Your task to perform on an android device: show emergency info Image 0: 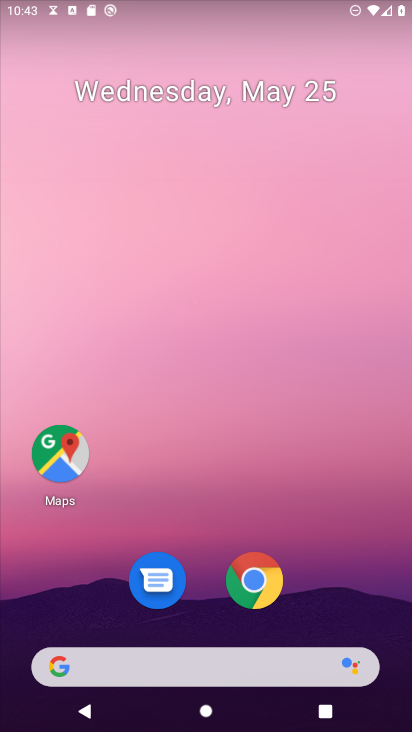
Step 0: drag from (27, 566) to (244, 75)
Your task to perform on an android device: show emergency info Image 1: 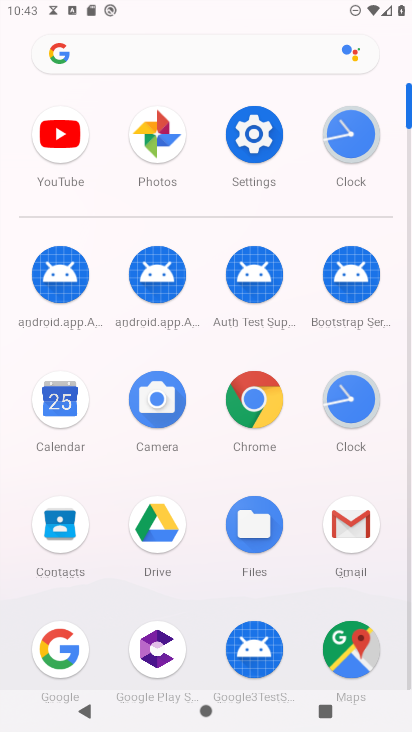
Step 1: click (248, 121)
Your task to perform on an android device: show emergency info Image 2: 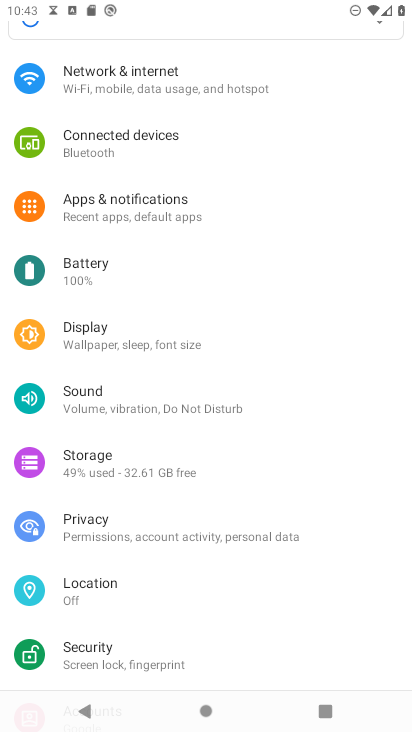
Step 2: drag from (18, 527) to (250, 75)
Your task to perform on an android device: show emergency info Image 3: 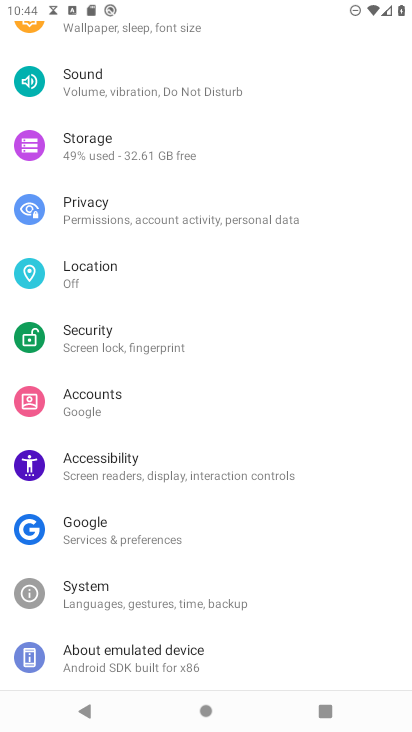
Step 3: drag from (2, 495) to (231, 147)
Your task to perform on an android device: show emergency info Image 4: 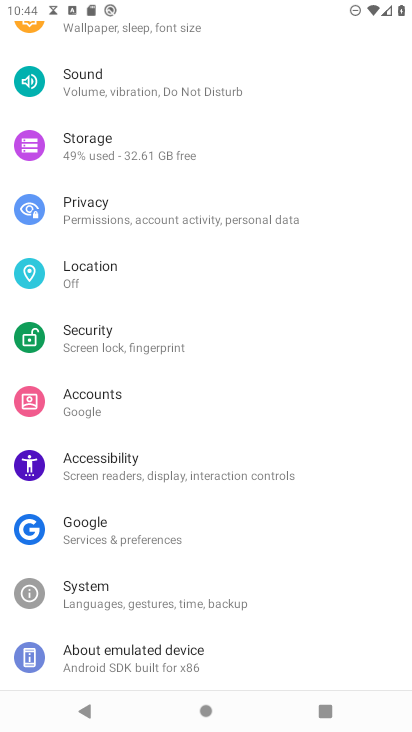
Step 4: click (69, 643)
Your task to perform on an android device: show emergency info Image 5: 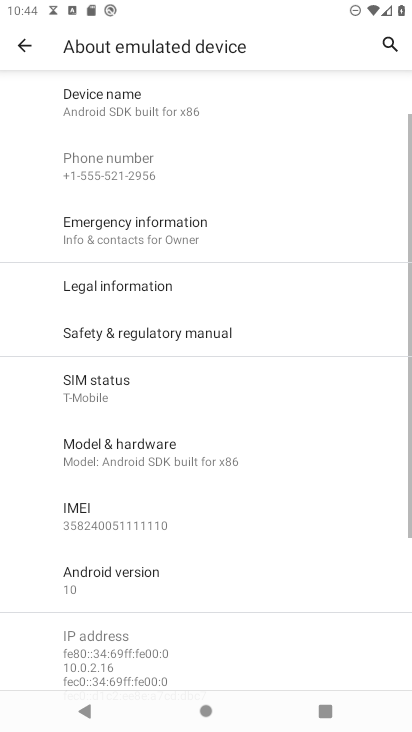
Step 5: click (81, 233)
Your task to perform on an android device: show emergency info Image 6: 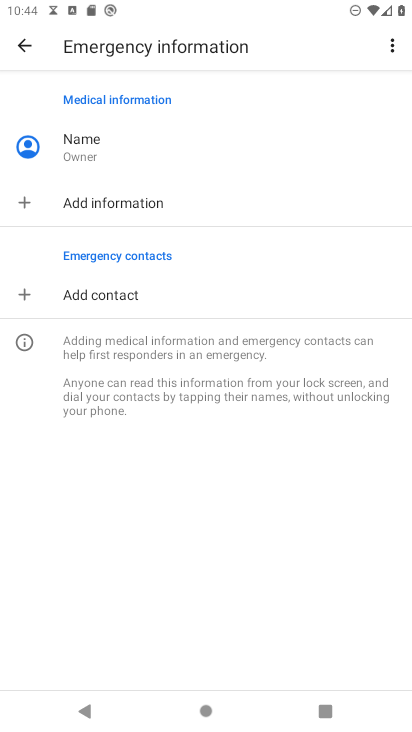
Step 6: task complete